Your task to perform on an android device: show emergency info Image 0: 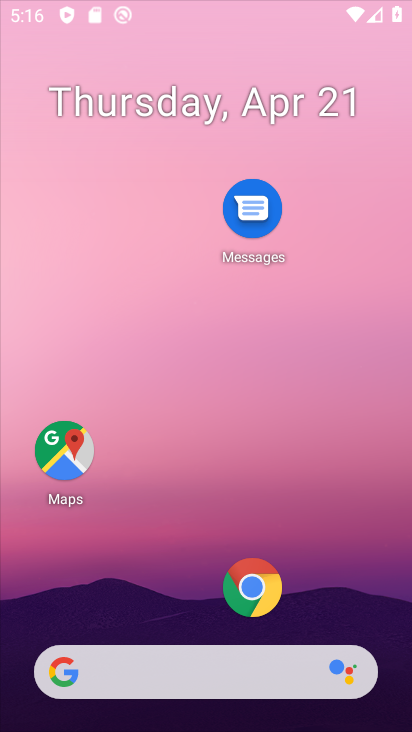
Step 0: drag from (199, 546) to (210, 97)
Your task to perform on an android device: show emergency info Image 1: 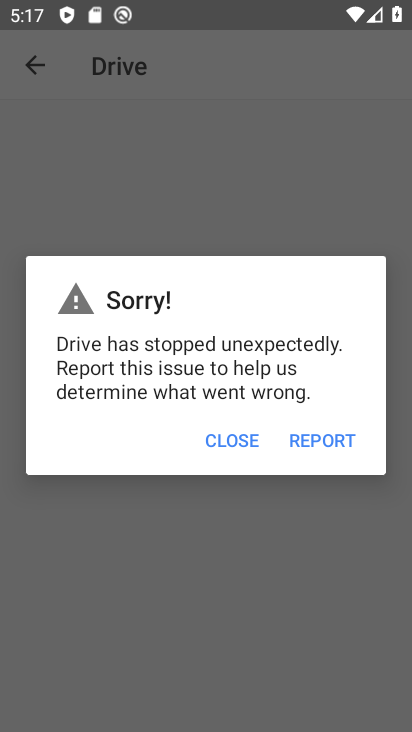
Step 1: press home button
Your task to perform on an android device: show emergency info Image 2: 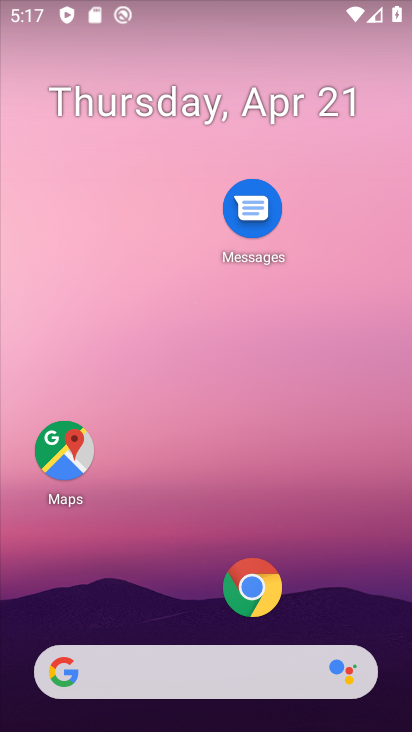
Step 2: drag from (202, 616) to (272, 88)
Your task to perform on an android device: show emergency info Image 3: 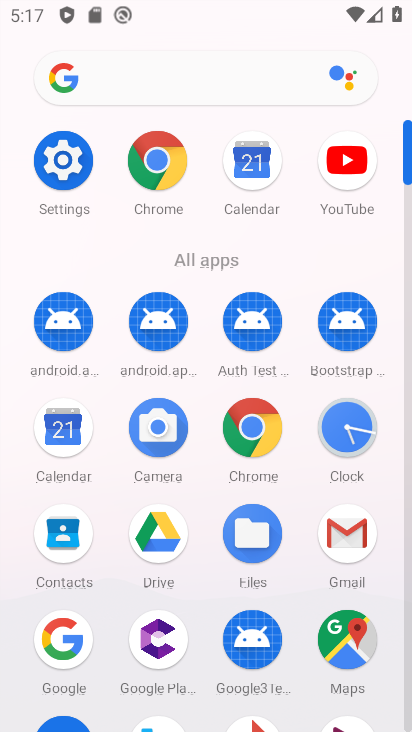
Step 3: click (61, 148)
Your task to perform on an android device: show emergency info Image 4: 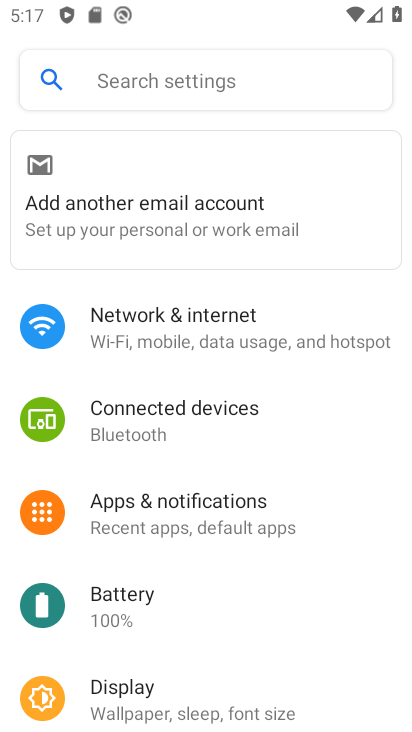
Step 4: drag from (203, 654) to (241, 107)
Your task to perform on an android device: show emergency info Image 5: 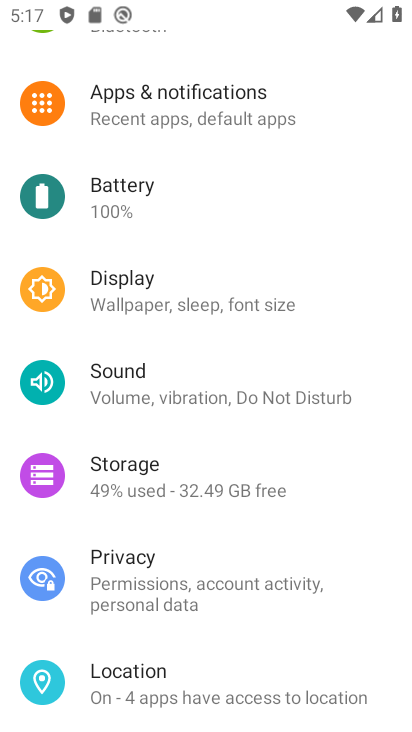
Step 5: drag from (215, 564) to (244, 135)
Your task to perform on an android device: show emergency info Image 6: 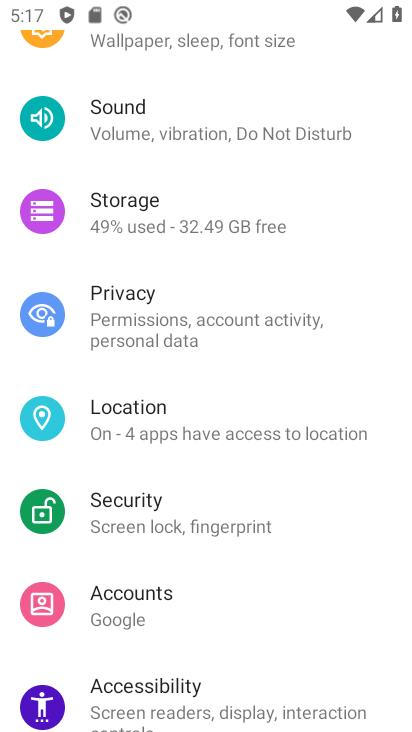
Step 6: drag from (226, 672) to (226, 50)
Your task to perform on an android device: show emergency info Image 7: 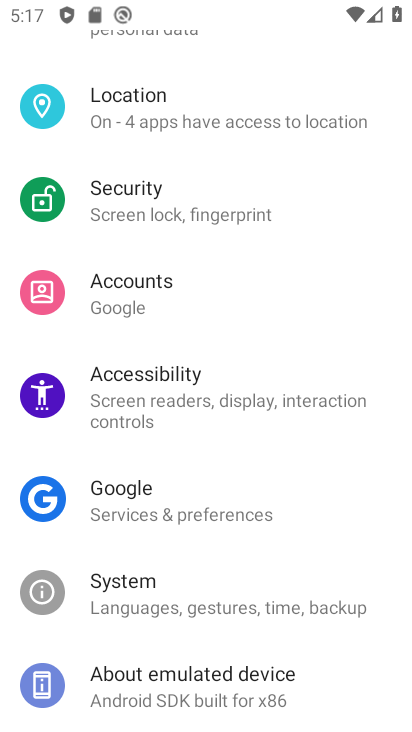
Step 7: click (308, 686)
Your task to perform on an android device: show emergency info Image 8: 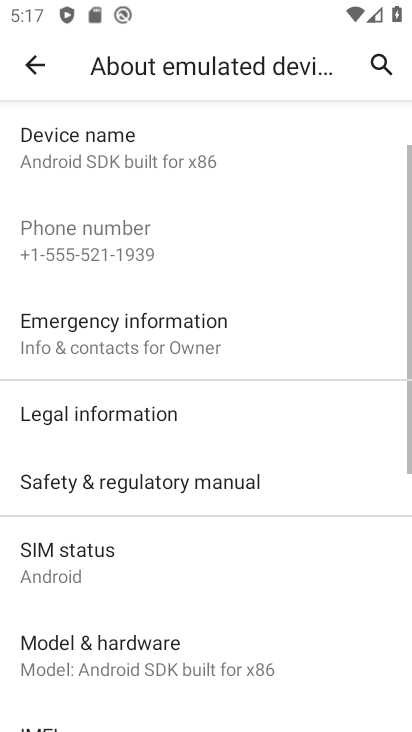
Step 8: click (222, 332)
Your task to perform on an android device: show emergency info Image 9: 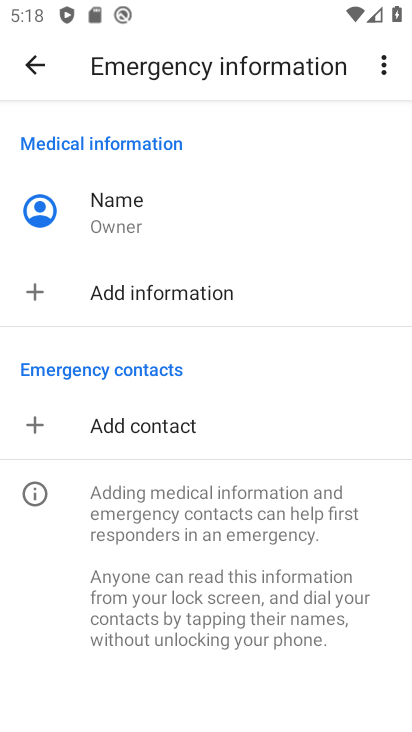
Step 9: task complete